Your task to perform on an android device: turn off sleep mode Image 0: 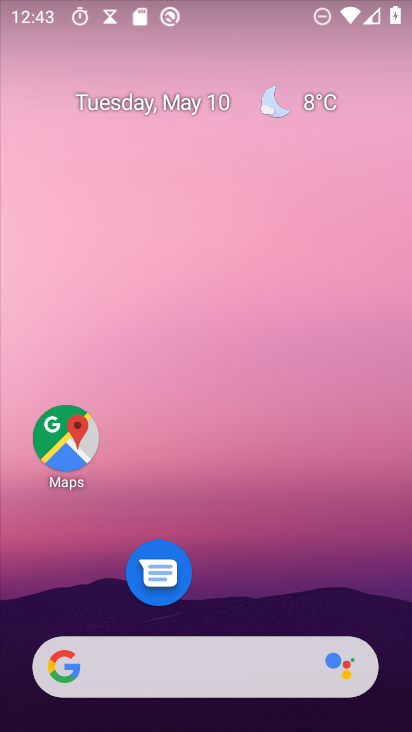
Step 0: drag from (245, 577) to (281, 15)
Your task to perform on an android device: turn off sleep mode Image 1: 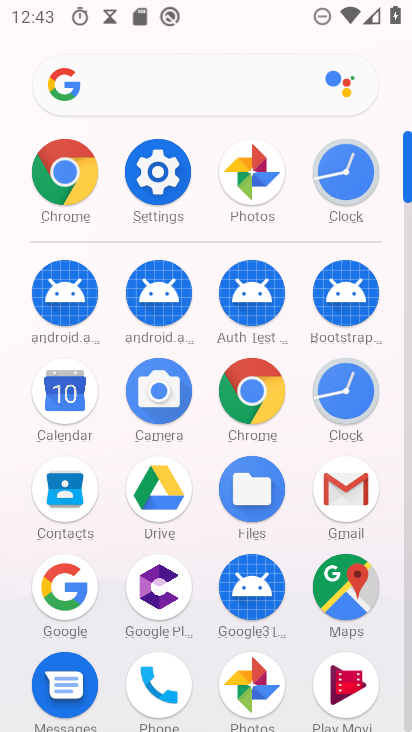
Step 1: click (164, 200)
Your task to perform on an android device: turn off sleep mode Image 2: 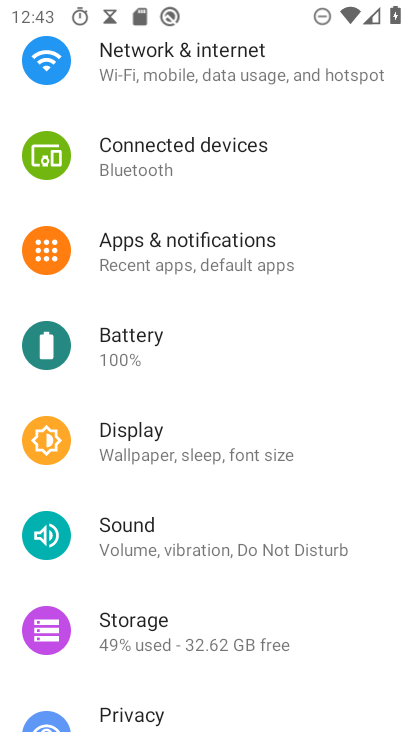
Step 2: drag from (181, 195) to (182, 662)
Your task to perform on an android device: turn off sleep mode Image 3: 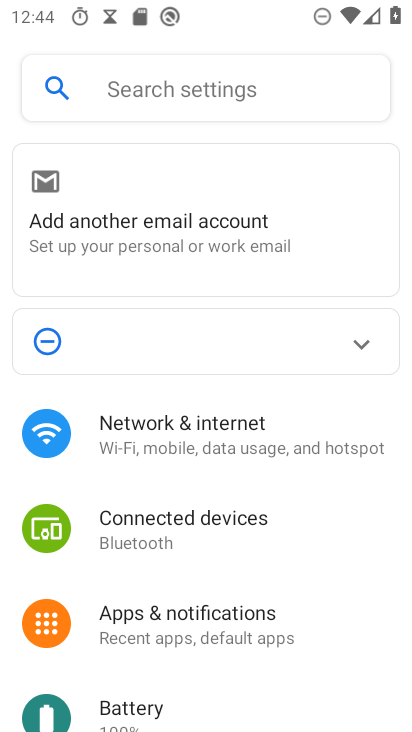
Step 3: click (206, 96)
Your task to perform on an android device: turn off sleep mode Image 4: 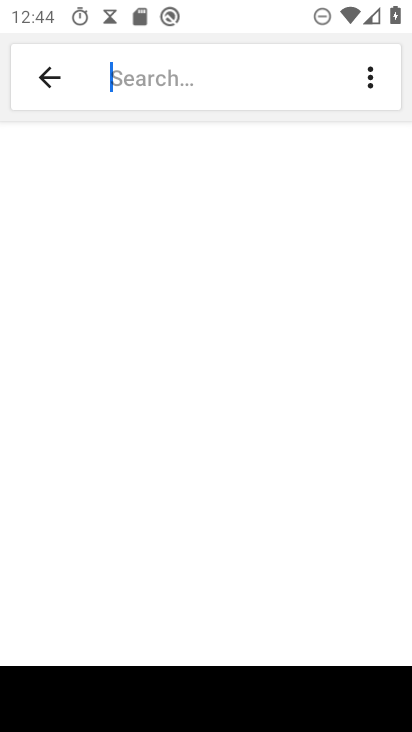
Step 4: type "sleep mode"
Your task to perform on an android device: turn off sleep mode Image 5: 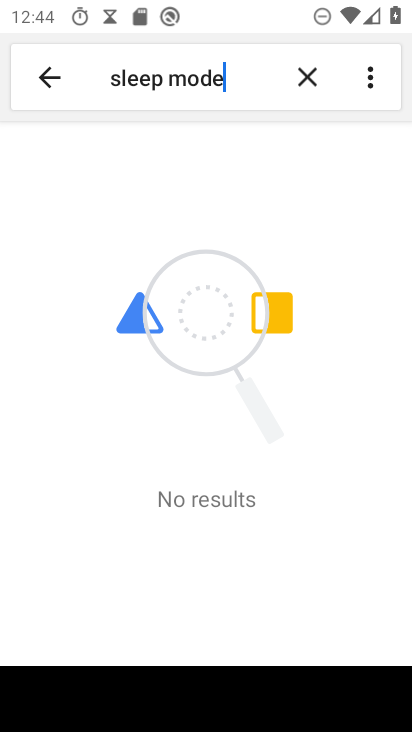
Step 5: task complete